Your task to perform on an android device: Show me popular videos on Youtube Image 0: 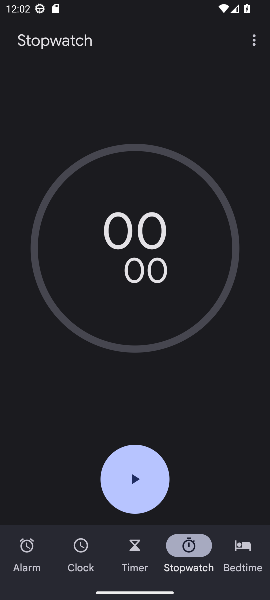
Step 0: press home button
Your task to perform on an android device: Show me popular videos on Youtube Image 1: 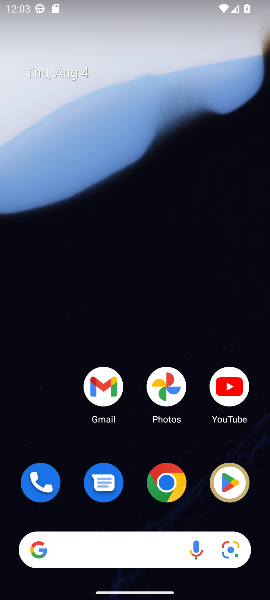
Step 1: click (228, 390)
Your task to perform on an android device: Show me popular videos on Youtube Image 2: 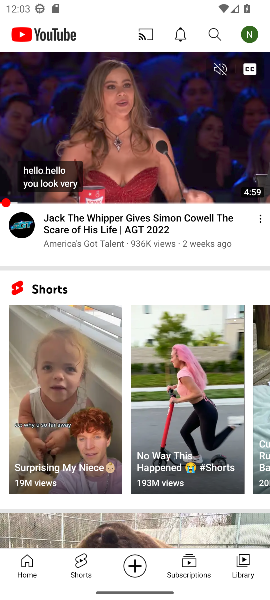
Step 2: click (216, 31)
Your task to perform on an android device: Show me popular videos on Youtube Image 3: 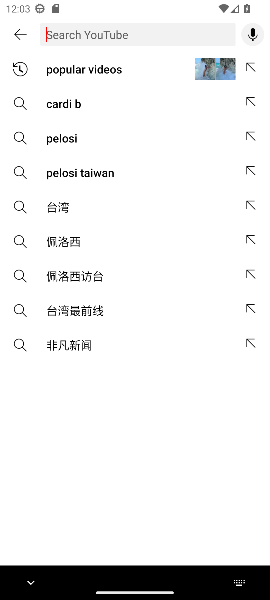
Step 3: click (113, 72)
Your task to perform on an android device: Show me popular videos on Youtube Image 4: 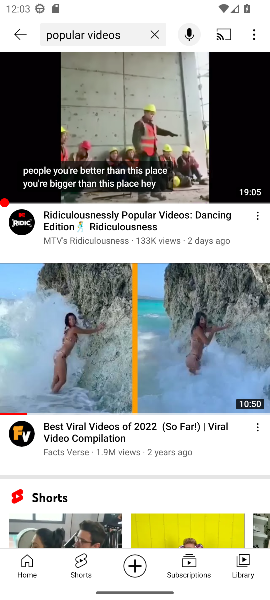
Step 4: task complete